Your task to perform on an android device: When is my next meeting? Image 0: 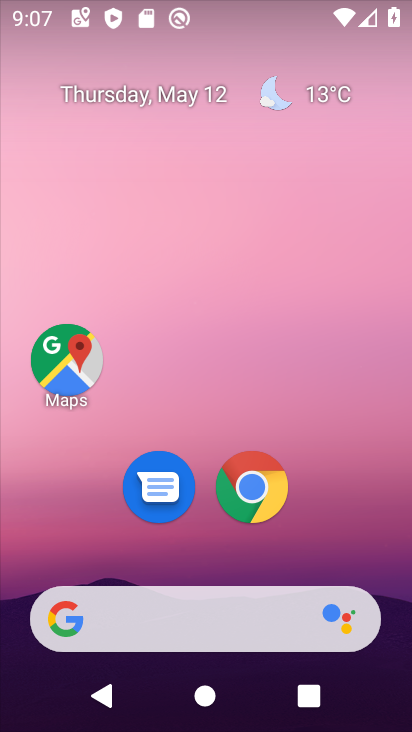
Step 0: click (199, 110)
Your task to perform on an android device: When is my next meeting? Image 1: 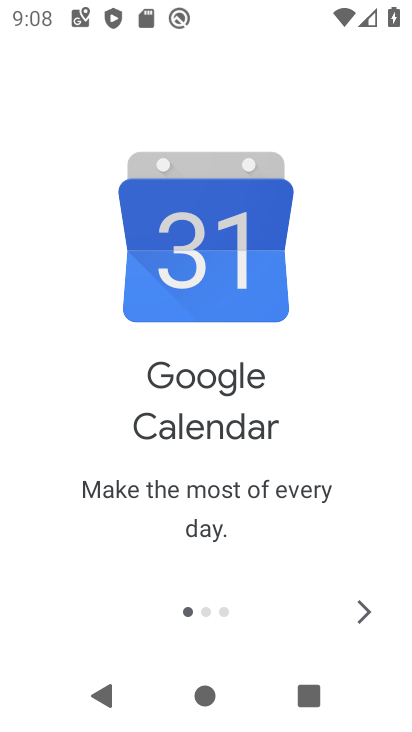
Step 1: click (355, 619)
Your task to perform on an android device: When is my next meeting? Image 2: 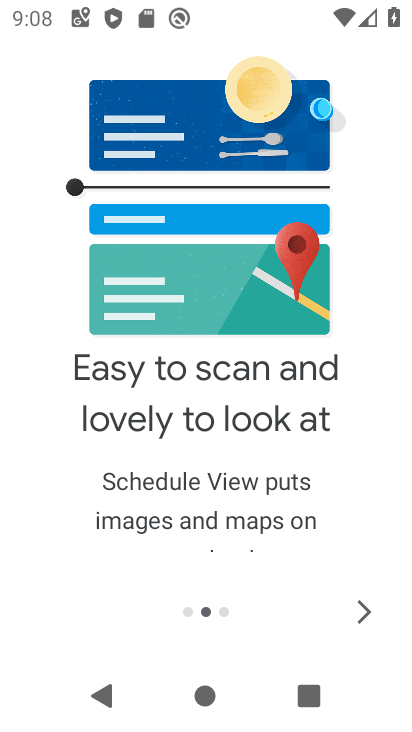
Step 2: click (355, 619)
Your task to perform on an android device: When is my next meeting? Image 3: 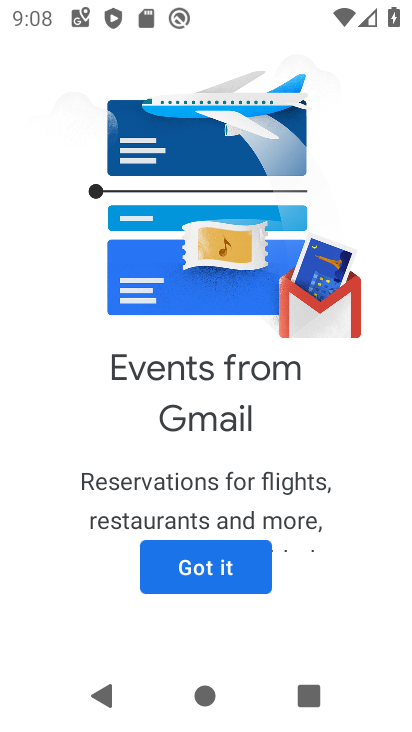
Step 3: click (218, 579)
Your task to perform on an android device: When is my next meeting? Image 4: 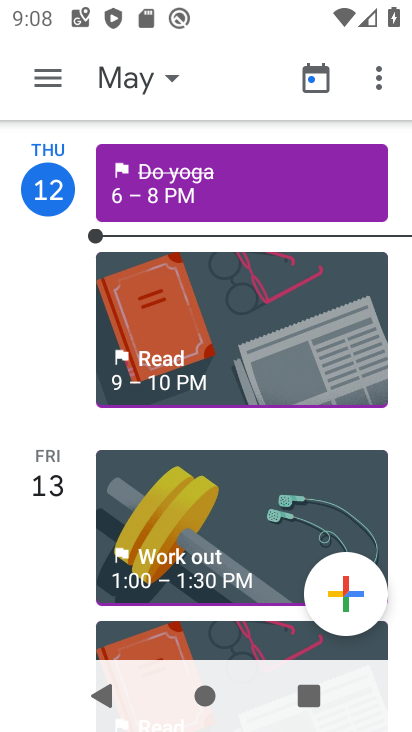
Step 4: task complete